Your task to perform on an android device: Open location settings Image 0: 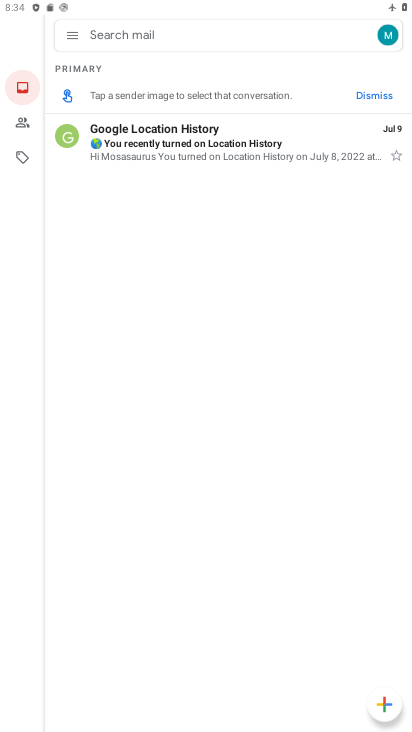
Step 0: press home button
Your task to perform on an android device: Open location settings Image 1: 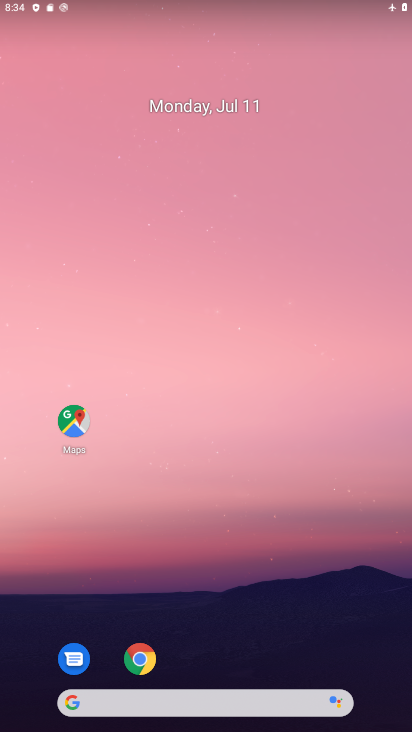
Step 1: drag from (223, 656) to (199, 171)
Your task to perform on an android device: Open location settings Image 2: 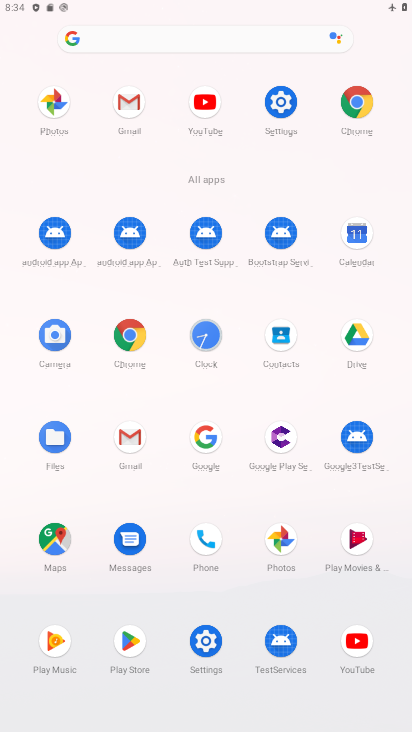
Step 2: click (264, 102)
Your task to perform on an android device: Open location settings Image 3: 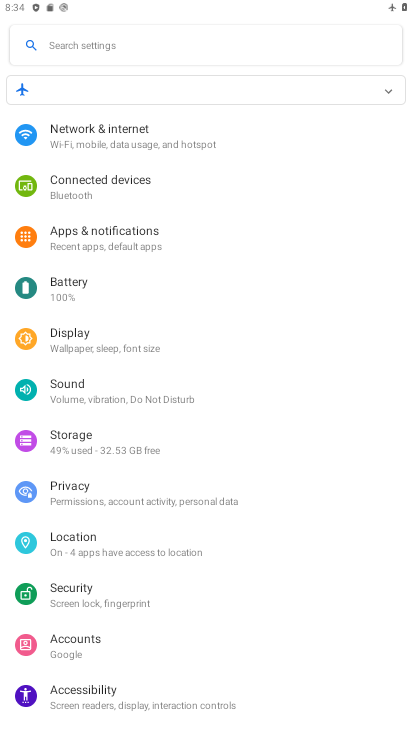
Step 3: click (203, 541)
Your task to perform on an android device: Open location settings Image 4: 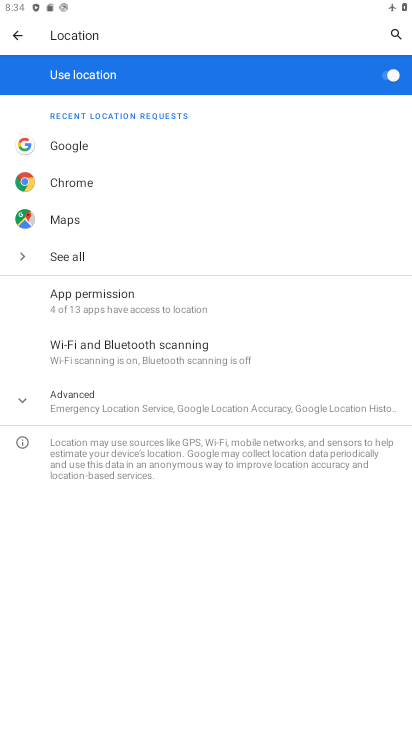
Step 4: task complete